Your task to perform on an android device: add a contact in the contacts app Image 0: 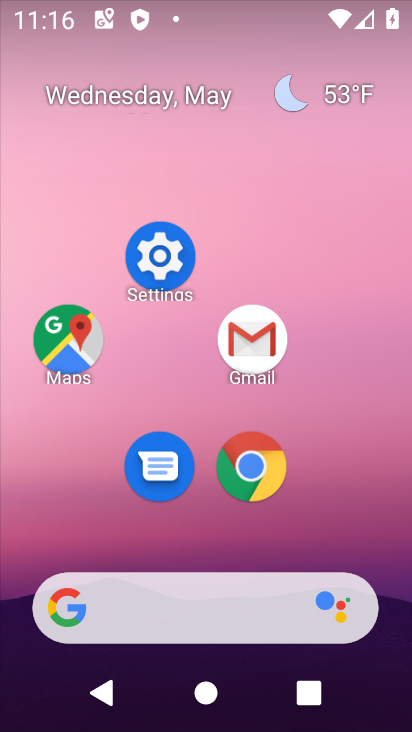
Step 0: drag from (202, 544) to (240, 430)
Your task to perform on an android device: add a contact in the contacts app Image 1: 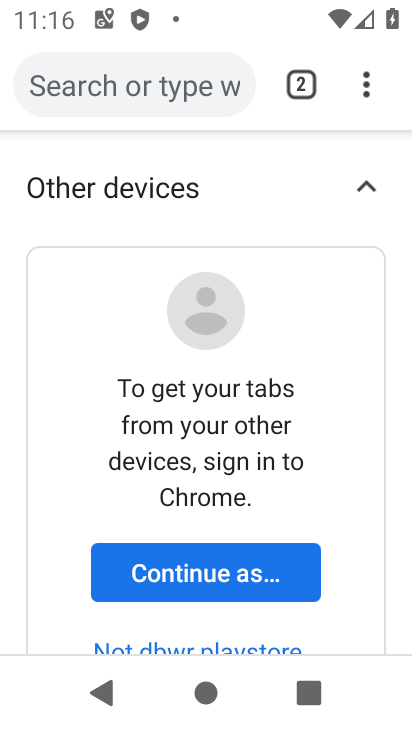
Step 1: drag from (206, 616) to (268, 222)
Your task to perform on an android device: add a contact in the contacts app Image 2: 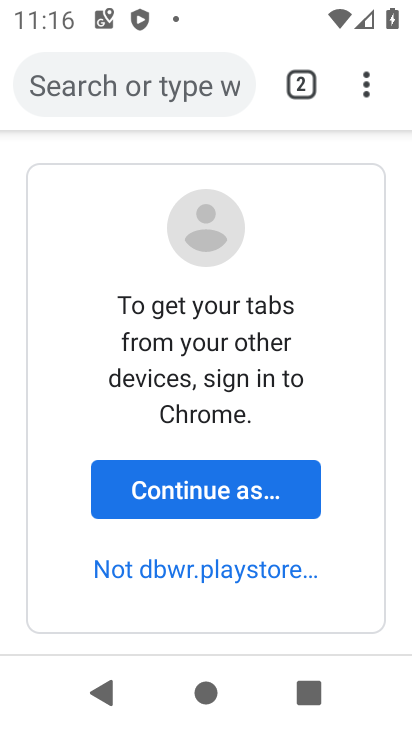
Step 2: press home button
Your task to perform on an android device: add a contact in the contacts app Image 3: 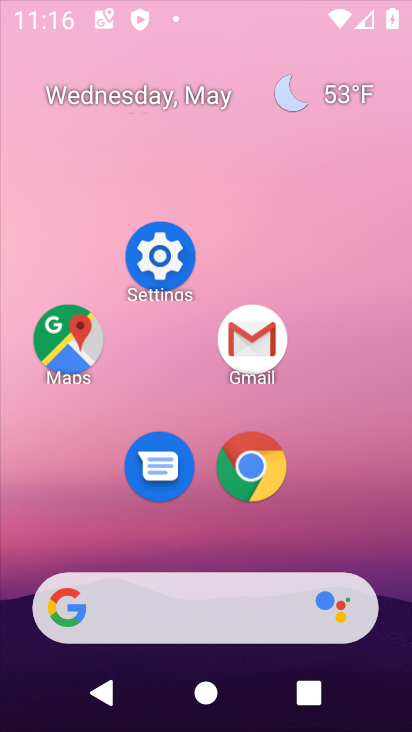
Step 3: drag from (183, 607) to (265, 255)
Your task to perform on an android device: add a contact in the contacts app Image 4: 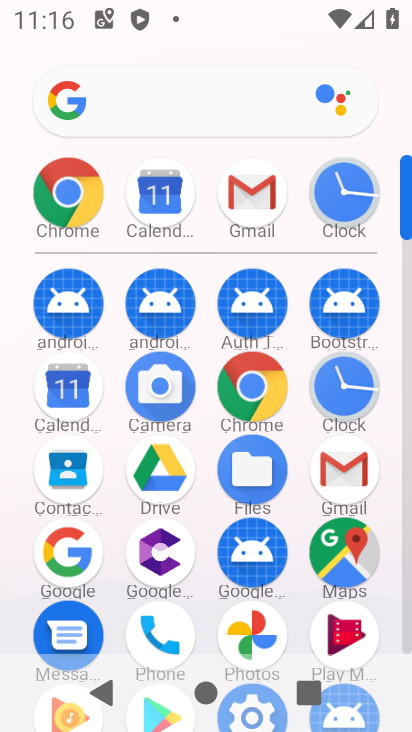
Step 4: drag from (186, 613) to (217, 279)
Your task to perform on an android device: add a contact in the contacts app Image 5: 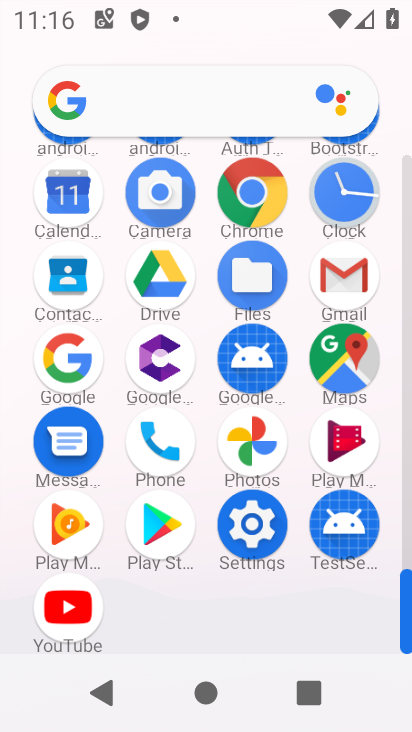
Step 5: click (81, 272)
Your task to perform on an android device: add a contact in the contacts app Image 6: 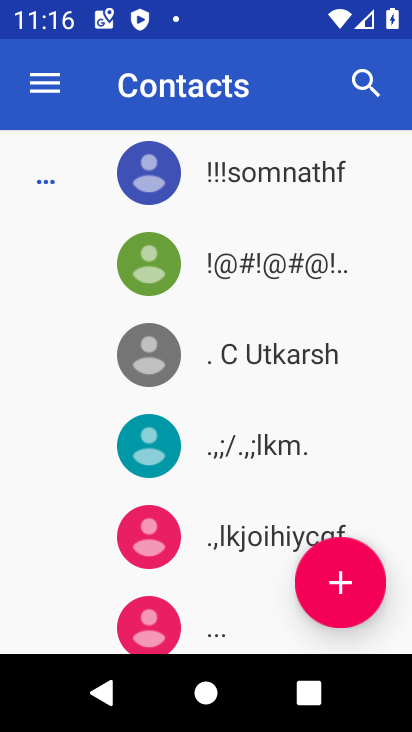
Step 6: drag from (239, 558) to (227, 318)
Your task to perform on an android device: add a contact in the contacts app Image 7: 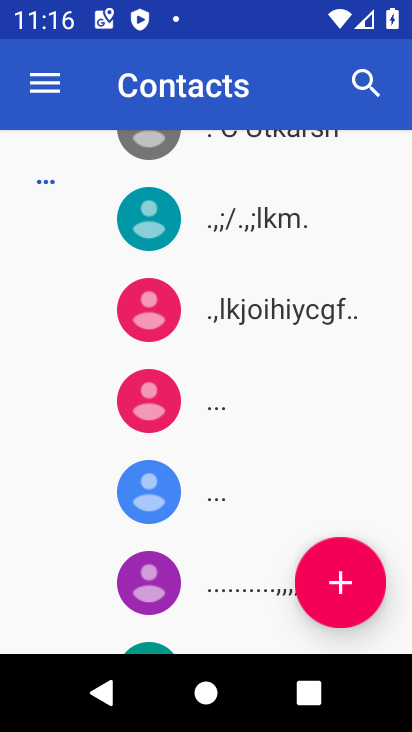
Step 7: click (341, 582)
Your task to perform on an android device: add a contact in the contacts app Image 8: 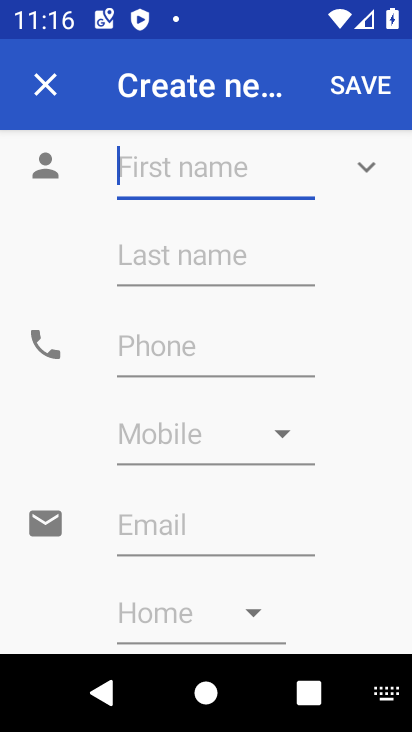
Step 8: type "yyyh"
Your task to perform on an android device: add a contact in the contacts app Image 9: 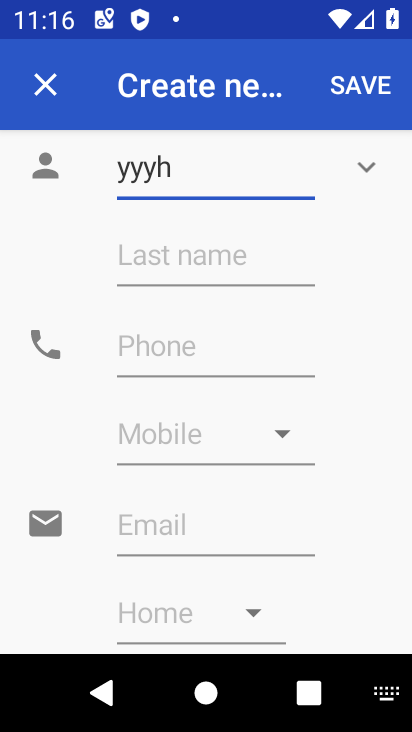
Step 9: click (360, 97)
Your task to perform on an android device: add a contact in the contacts app Image 10: 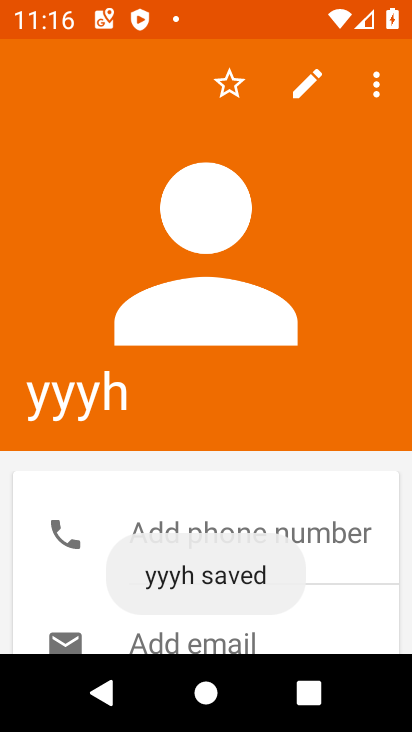
Step 10: task complete